Your task to perform on an android device: check out phone information Image 0: 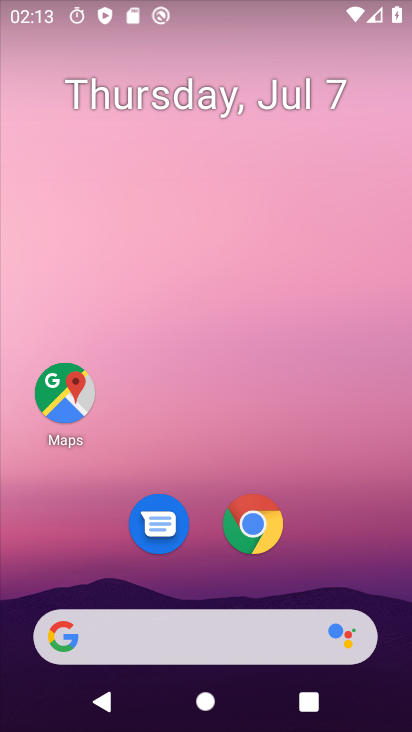
Step 0: drag from (243, 401) to (250, 28)
Your task to perform on an android device: check out phone information Image 1: 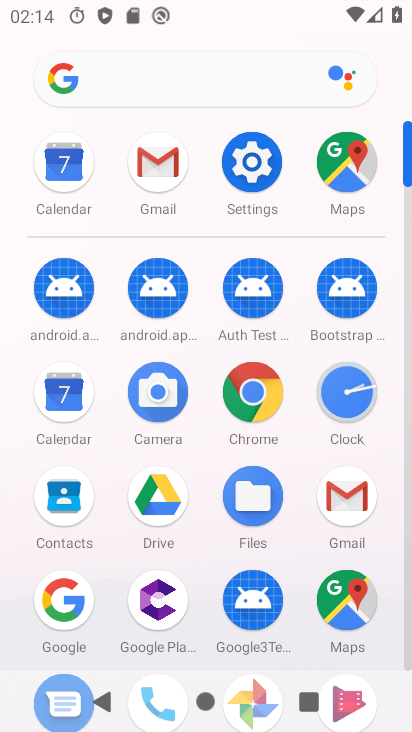
Step 1: drag from (203, 464) to (188, 218)
Your task to perform on an android device: check out phone information Image 2: 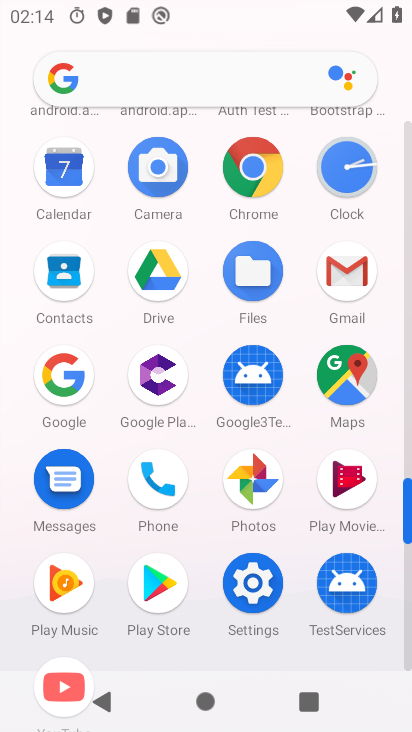
Step 2: click (166, 467)
Your task to perform on an android device: check out phone information Image 3: 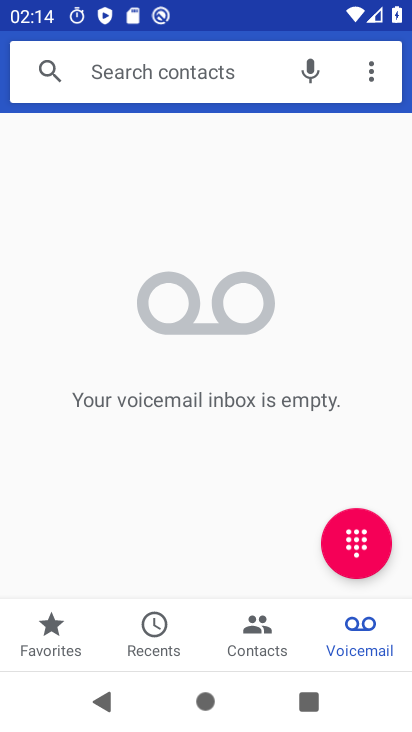
Step 3: click (369, 78)
Your task to perform on an android device: check out phone information Image 4: 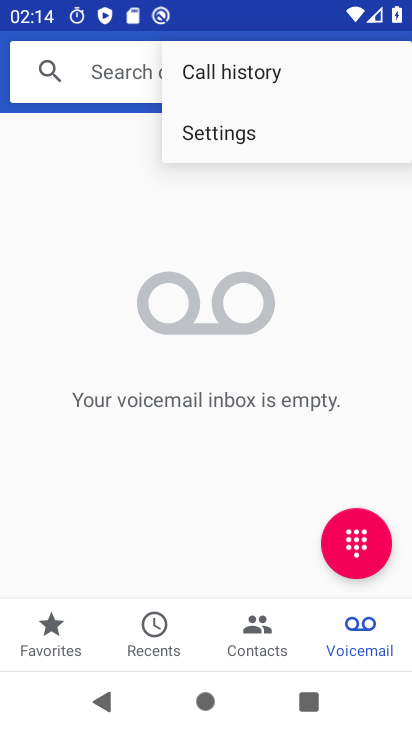
Step 4: click (297, 135)
Your task to perform on an android device: check out phone information Image 5: 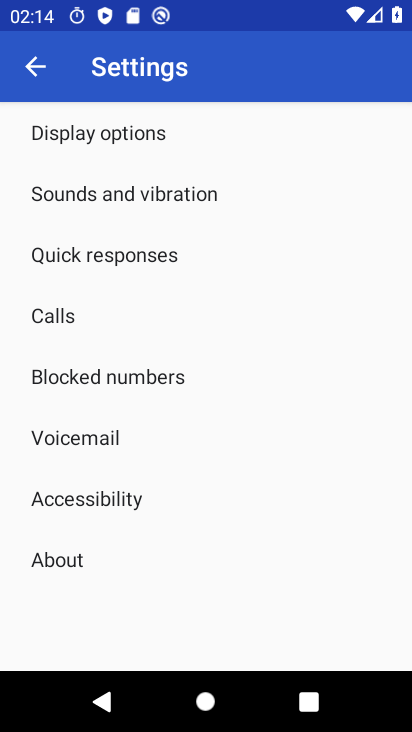
Step 5: click (55, 552)
Your task to perform on an android device: check out phone information Image 6: 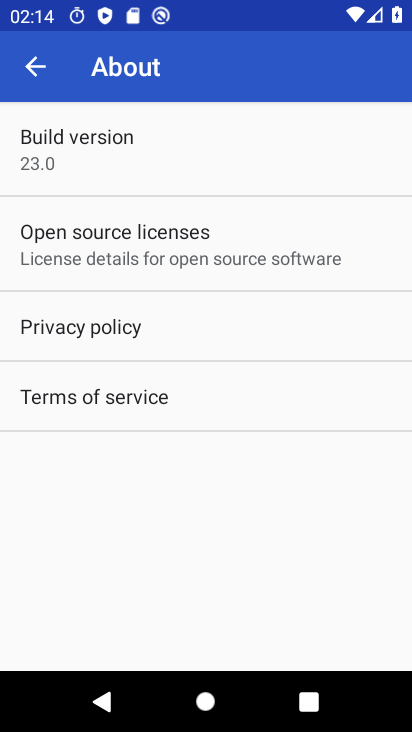
Step 6: task complete